Your task to perform on an android device: Is it going to rain this weekend? Image 0: 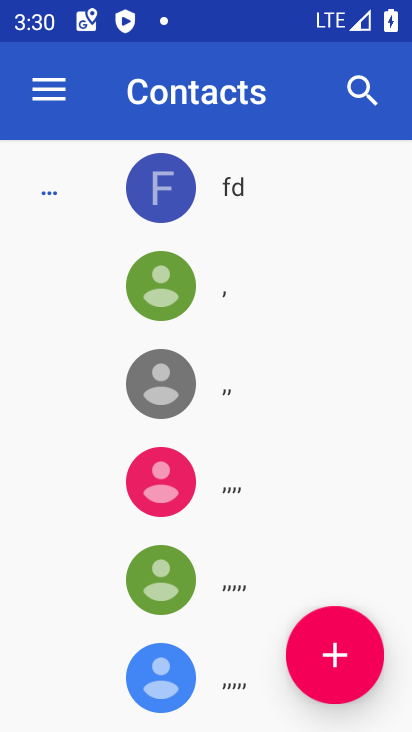
Step 0: press back button
Your task to perform on an android device: Is it going to rain this weekend? Image 1: 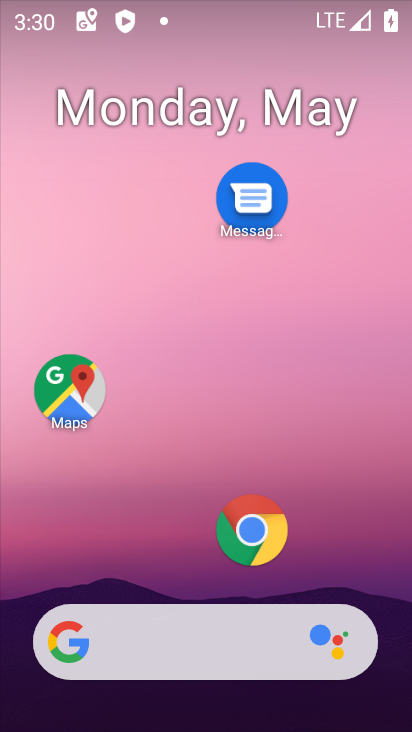
Step 1: click (146, 648)
Your task to perform on an android device: Is it going to rain this weekend? Image 2: 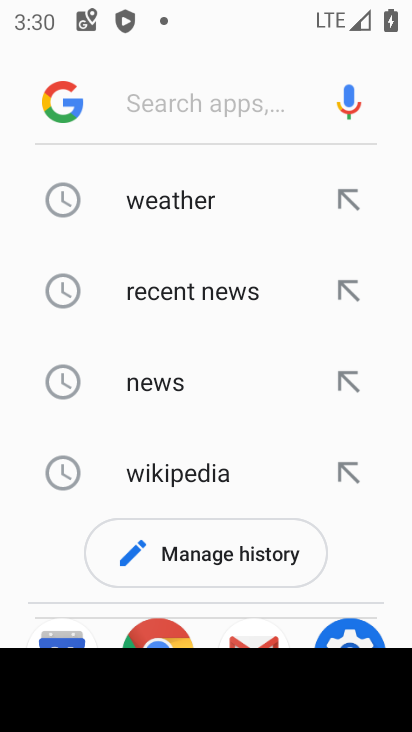
Step 2: click (176, 193)
Your task to perform on an android device: Is it going to rain this weekend? Image 3: 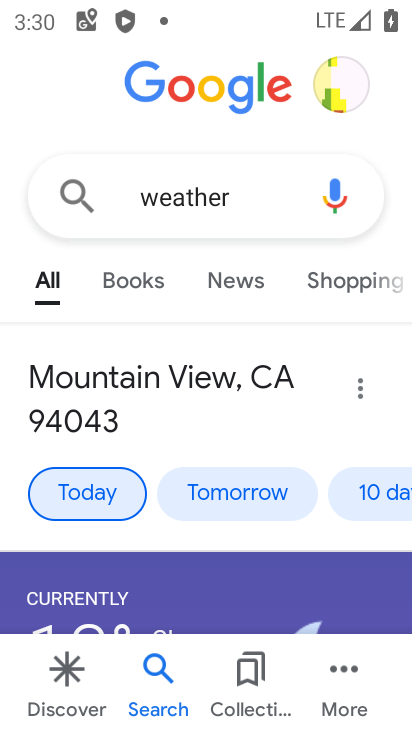
Step 3: drag from (245, 575) to (212, 266)
Your task to perform on an android device: Is it going to rain this weekend? Image 4: 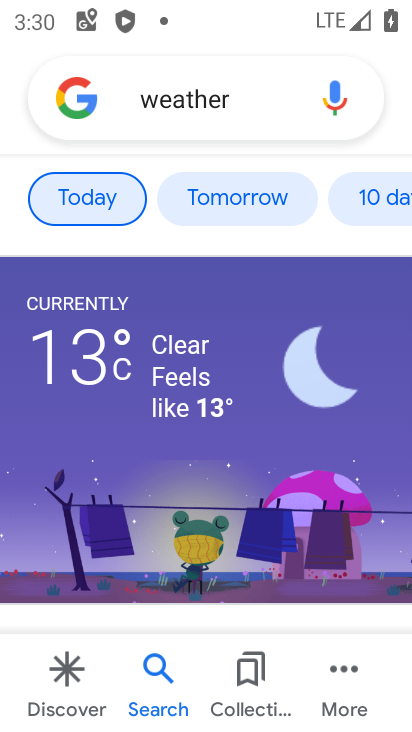
Step 4: click (389, 178)
Your task to perform on an android device: Is it going to rain this weekend? Image 5: 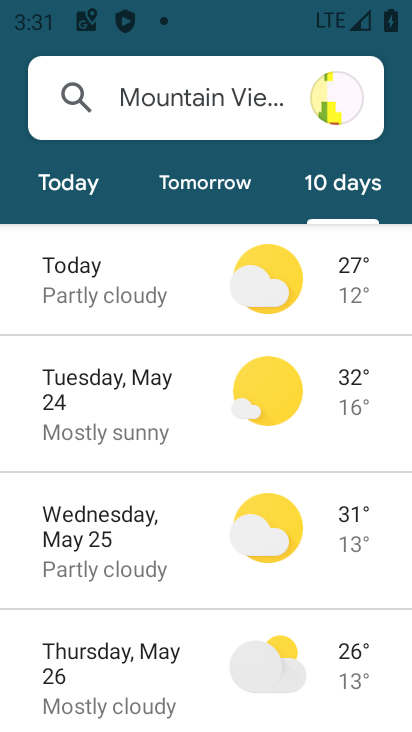
Step 5: task complete